Your task to perform on an android device: Go to Android settings Image 0: 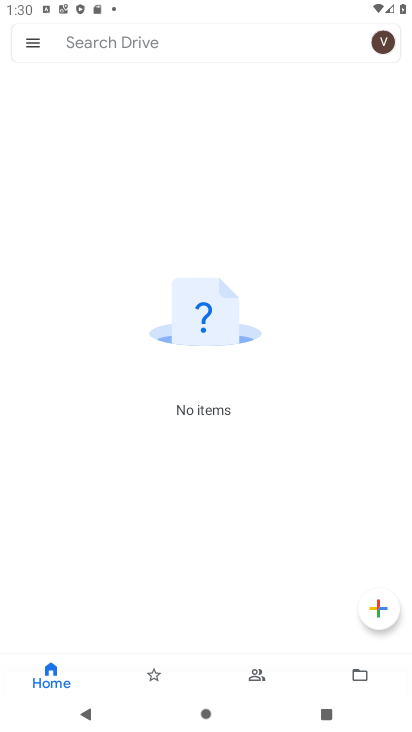
Step 0: press home button
Your task to perform on an android device: Go to Android settings Image 1: 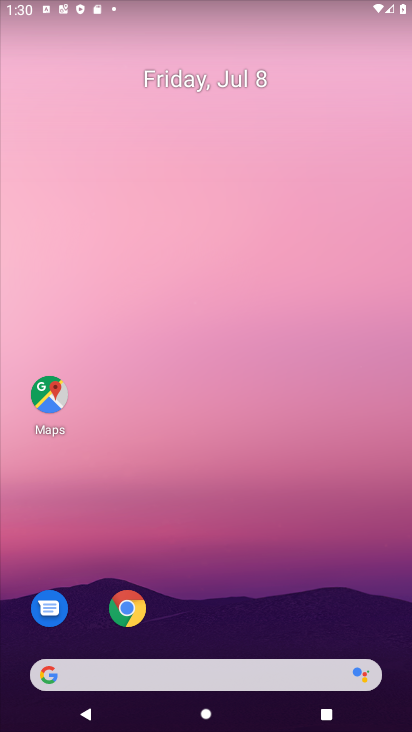
Step 1: drag from (393, 639) to (323, 80)
Your task to perform on an android device: Go to Android settings Image 2: 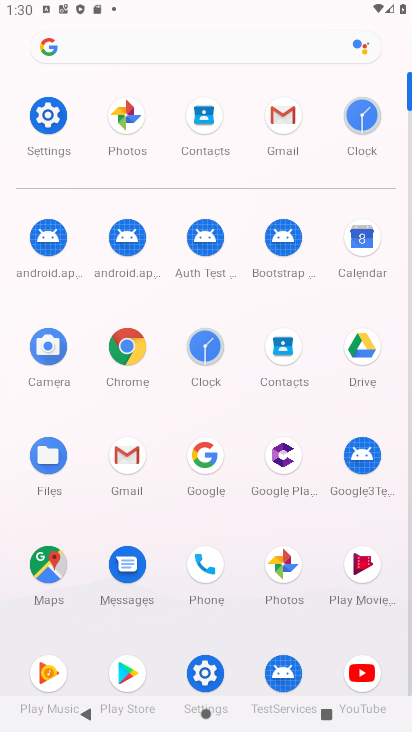
Step 2: click (204, 673)
Your task to perform on an android device: Go to Android settings Image 3: 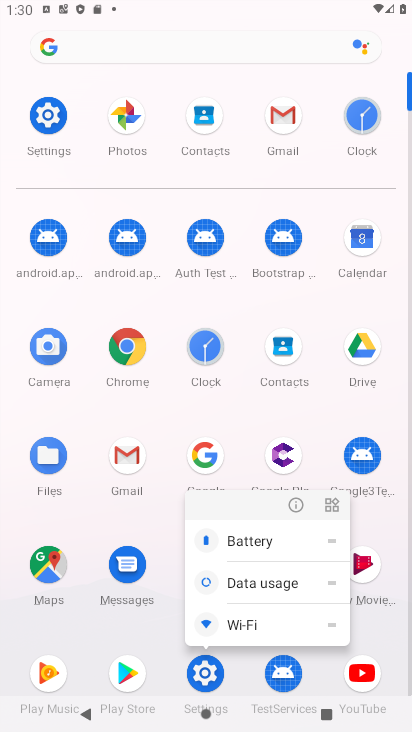
Step 3: click (205, 673)
Your task to perform on an android device: Go to Android settings Image 4: 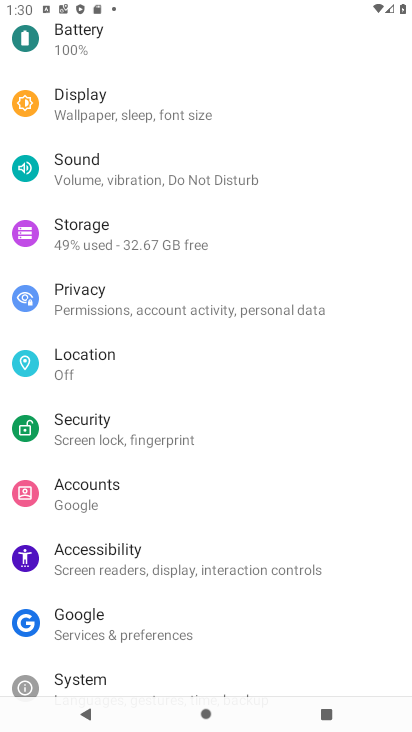
Step 4: drag from (340, 623) to (358, 239)
Your task to perform on an android device: Go to Android settings Image 5: 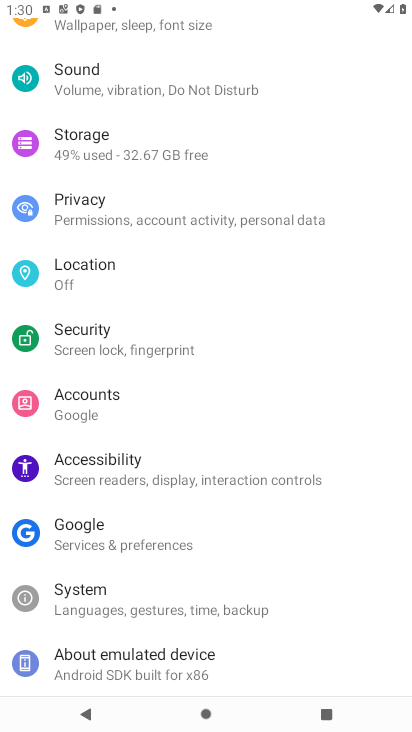
Step 5: click (83, 648)
Your task to perform on an android device: Go to Android settings Image 6: 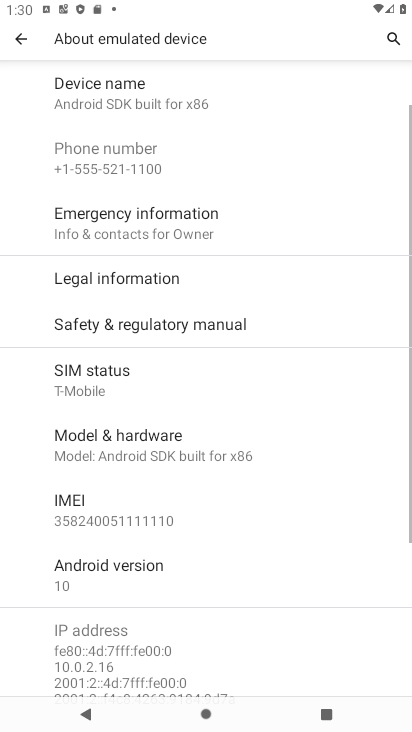
Step 6: task complete